Your task to perform on an android device: Open Reddit.com Image 0: 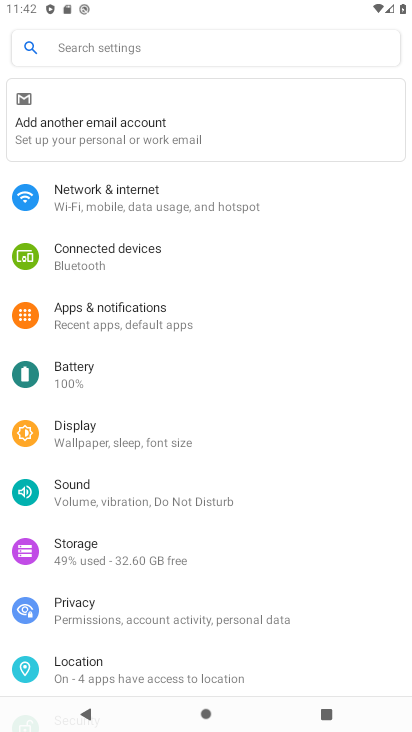
Step 0: press back button
Your task to perform on an android device: Open Reddit.com Image 1: 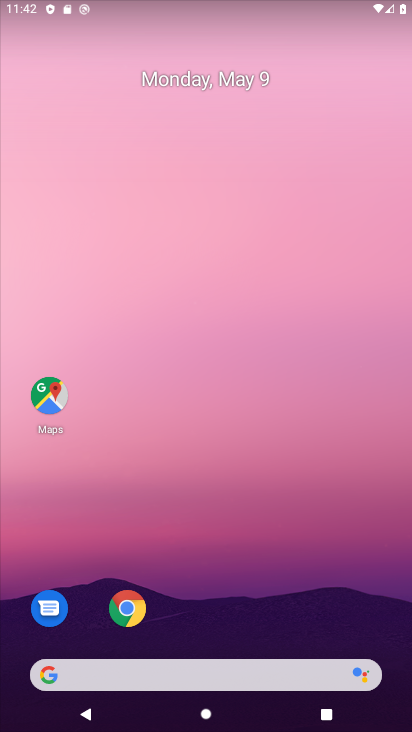
Step 1: drag from (297, 578) to (290, 33)
Your task to perform on an android device: Open Reddit.com Image 2: 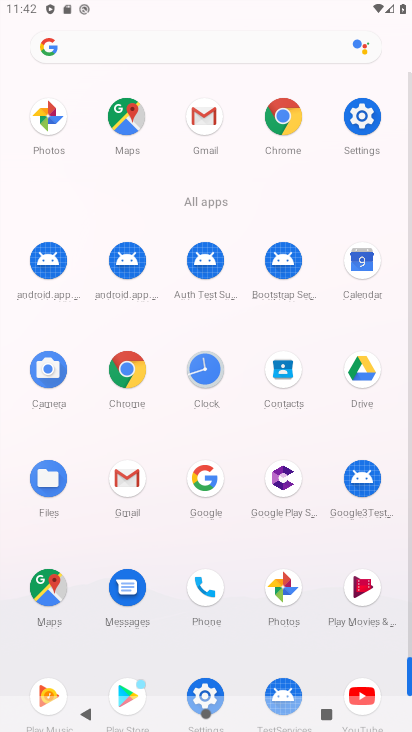
Step 2: click (282, 118)
Your task to perform on an android device: Open Reddit.com Image 3: 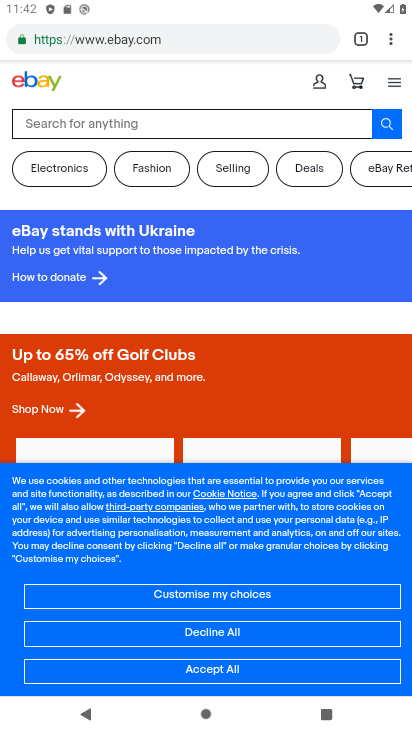
Step 3: click (160, 38)
Your task to perform on an android device: Open Reddit.com Image 4: 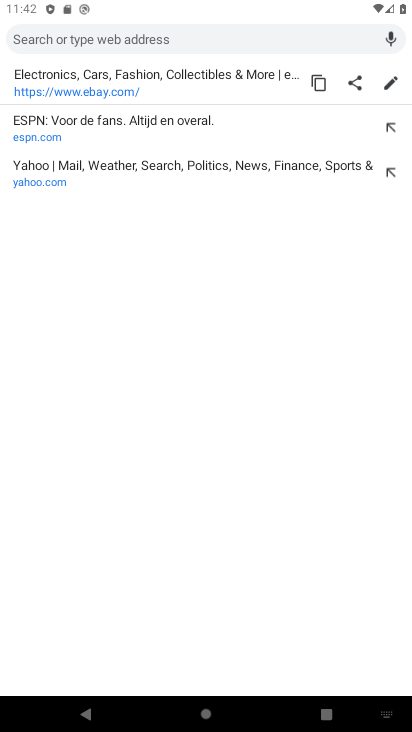
Step 4: type "Reddit.com"
Your task to perform on an android device: Open Reddit.com Image 5: 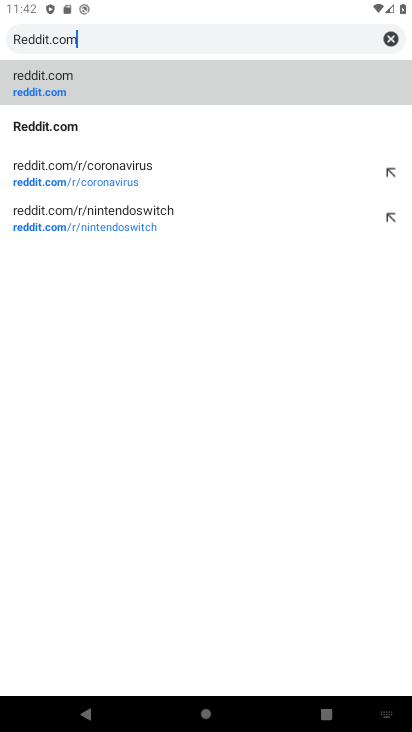
Step 5: type ""
Your task to perform on an android device: Open Reddit.com Image 6: 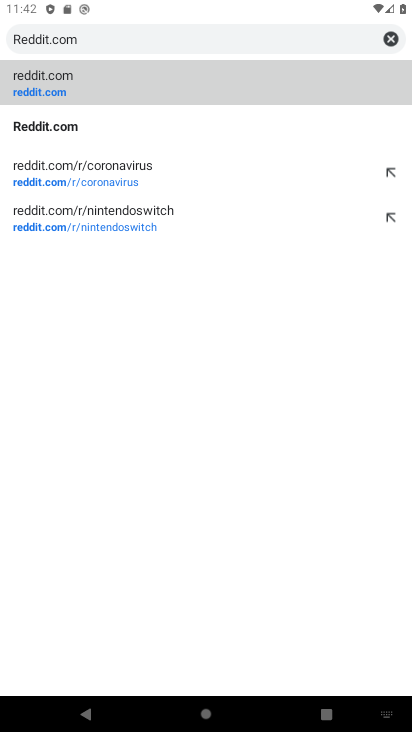
Step 6: click (84, 95)
Your task to perform on an android device: Open Reddit.com Image 7: 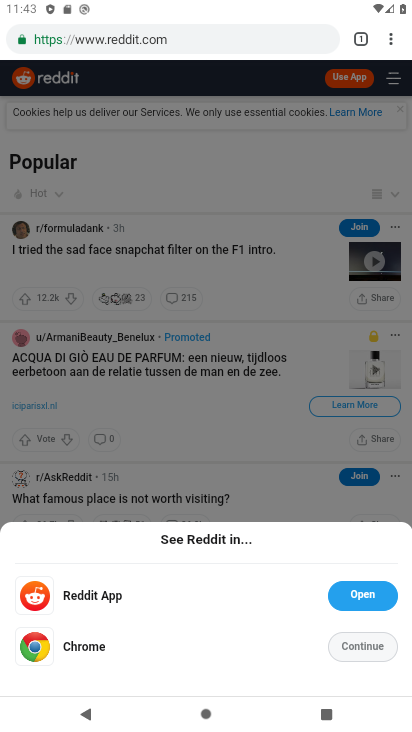
Step 7: task complete